Your task to perform on an android device: Open the web browser Image 0: 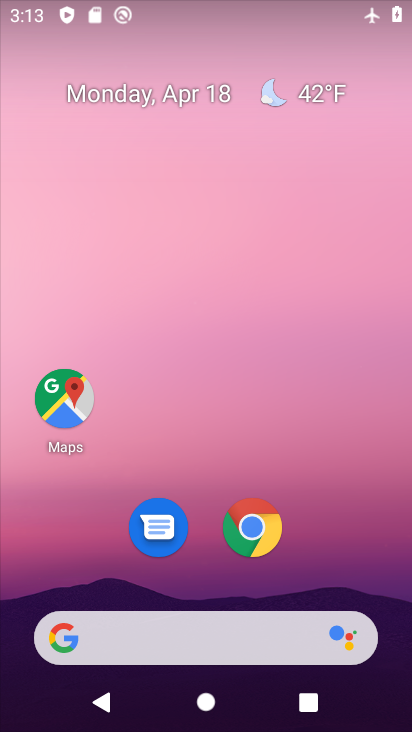
Step 0: click (249, 534)
Your task to perform on an android device: Open the web browser Image 1: 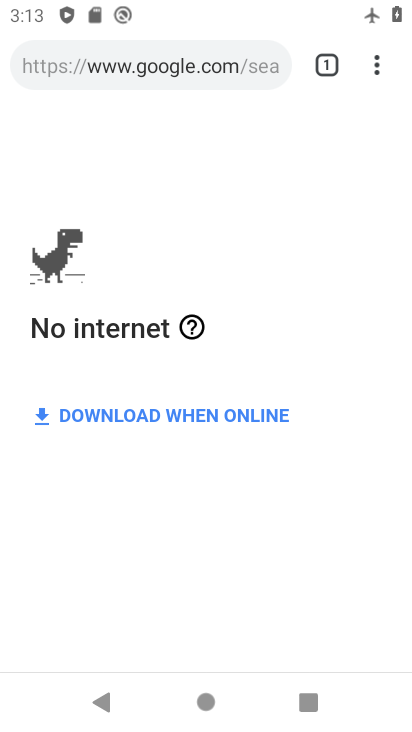
Step 1: task complete